Your task to perform on an android device: Search for Italian restaurants on Maps Image 0: 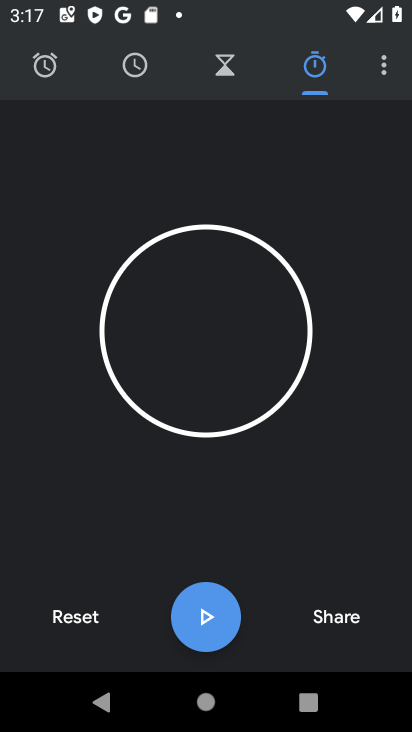
Step 0: press home button
Your task to perform on an android device: Search for Italian restaurants on Maps Image 1: 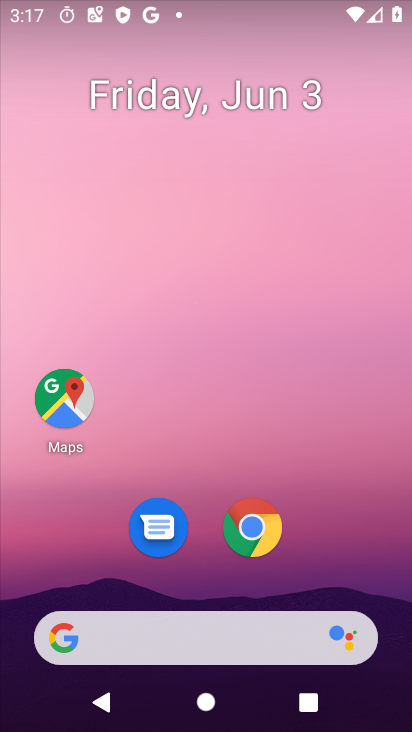
Step 1: click (60, 372)
Your task to perform on an android device: Search for Italian restaurants on Maps Image 2: 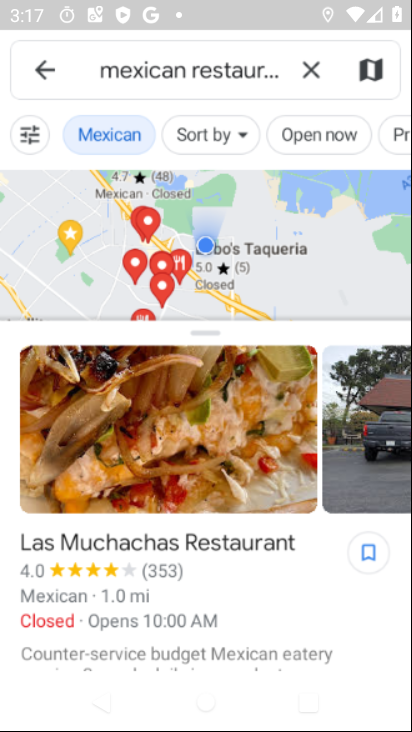
Step 2: click (308, 56)
Your task to perform on an android device: Search for Italian restaurants on Maps Image 3: 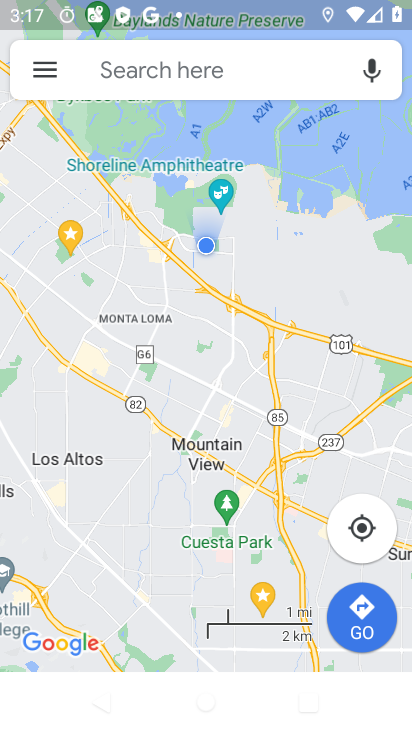
Step 3: click (217, 66)
Your task to perform on an android device: Search for Italian restaurants on Maps Image 4: 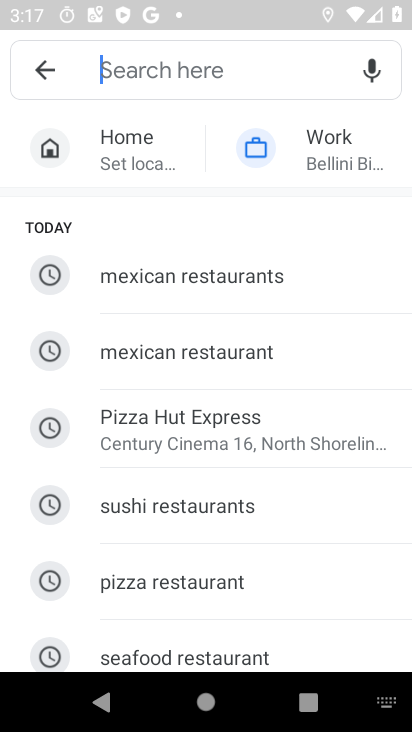
Step 4: drag from (214, 571) to (225, 321)
Your task to perform on an android device: Search for Italian restaurants on Maps Image 5: 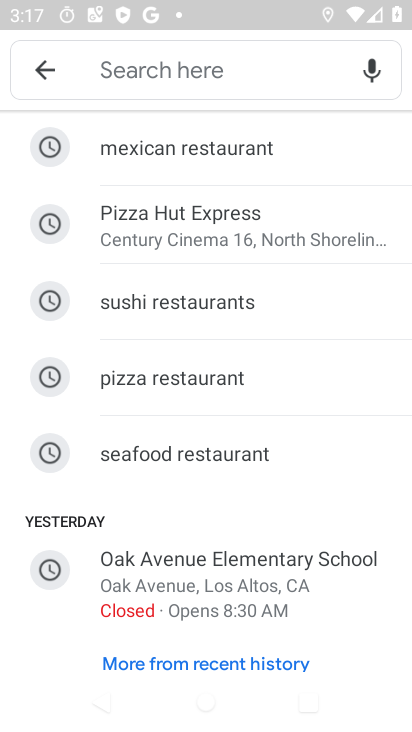
Step 5: click (238, 58)
Your task to perform on an android device: Search for Italian restaurants on Maps Image 6: 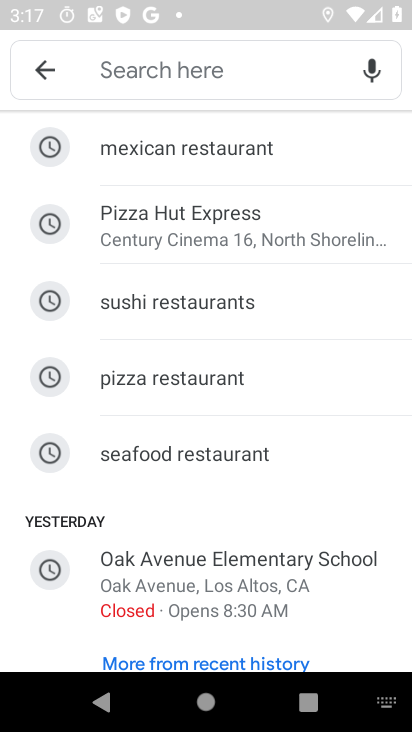
Step 6: type " Italian restaurants"
Your task to perform on an android device: Search for Italian restaurants on Maps Image 7: 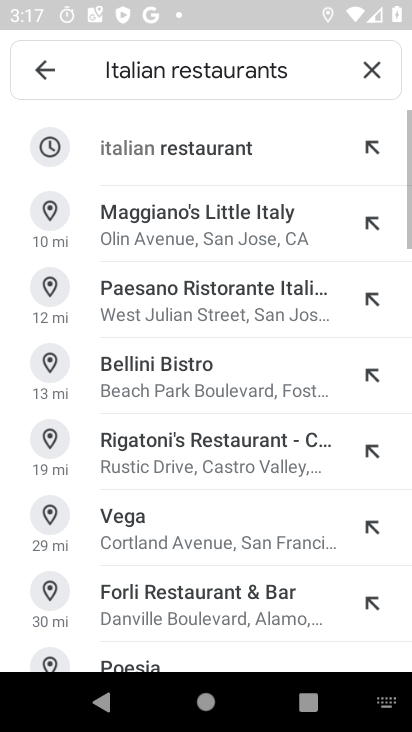
Step 7: click (178, 155)
Your task to perform on an android device: Search for Italian restaurants on Maps Image 8: 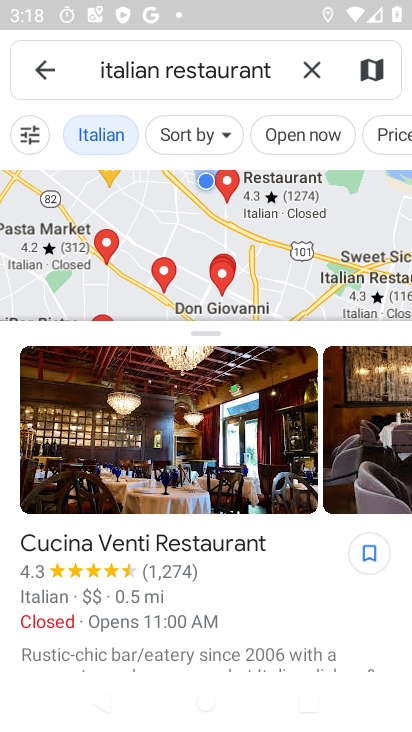
Step 8: task complete